Your task to perform on an android device: Go to calendar. Show me events next week Image 0: 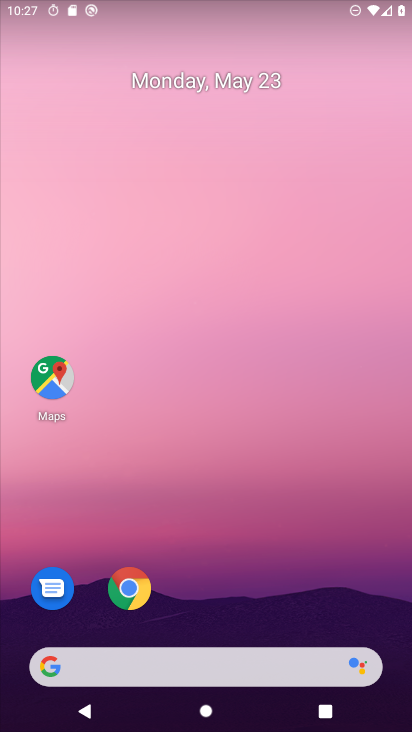
Step 0: drag from (389, 696) to (377, 121)
Your task to perform on an android device: Go to calendar. Show me events next week Image 1: 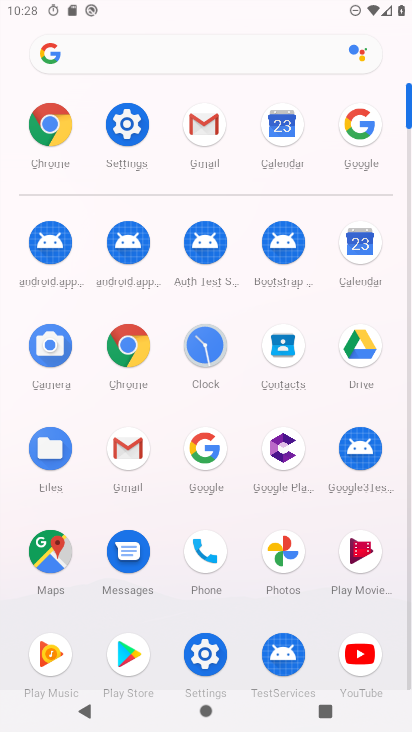
Step 1: click (355, 249)
Your task to perform on an android device: Go to calendar. Show me events next week Image 2: 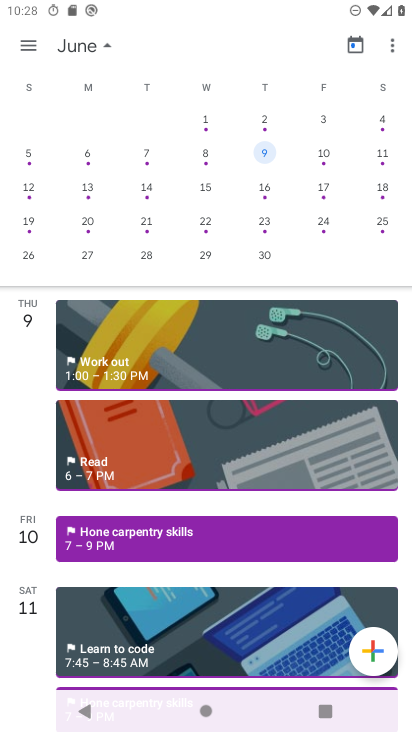
Step 2: drag from (12, 113) to (351, 126)
Your task to perform on an android device: Go to calendar. Show me events next week Image 3: 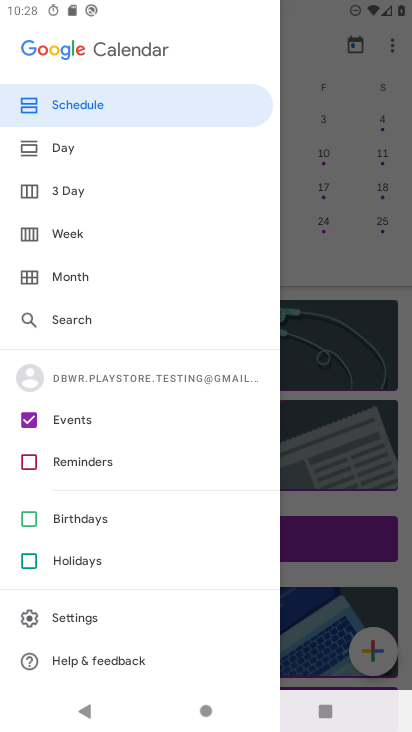
Step 3: press back button
Your task to perform on an android device: Go to calendar. Show me events next week Image 4: 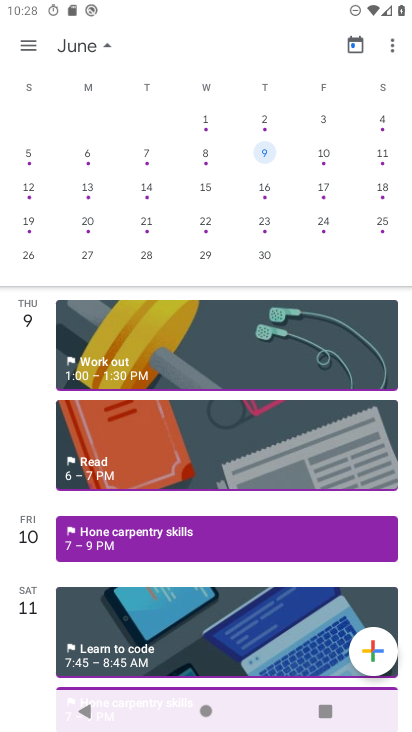
Step 4: drag from (12, 134) to (410, 140)
Your task to perform on an android device: Go to calendar. Show me events next week Image 5: 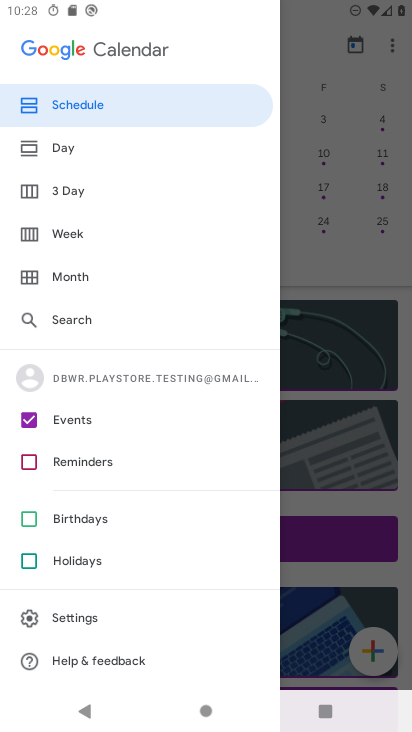
Step 5: press back button
Your task to perform on an android device: Go to calendar. Show me events next week Image 6: 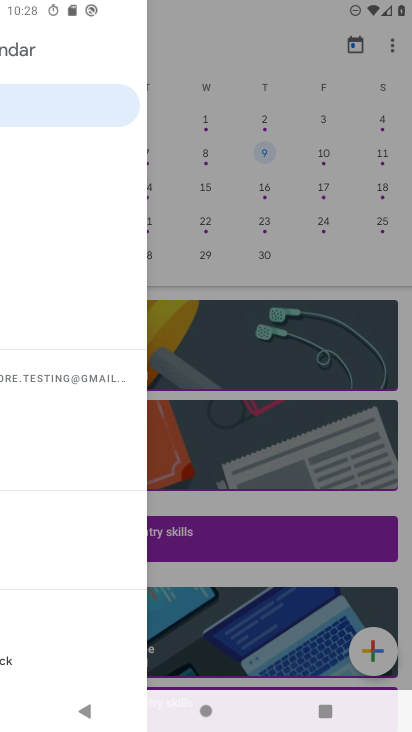
Step 6: drag from (410, 140) to (390, 212)
Your task to perform on an android device: Go to calendar. Show me events next week Image 7: 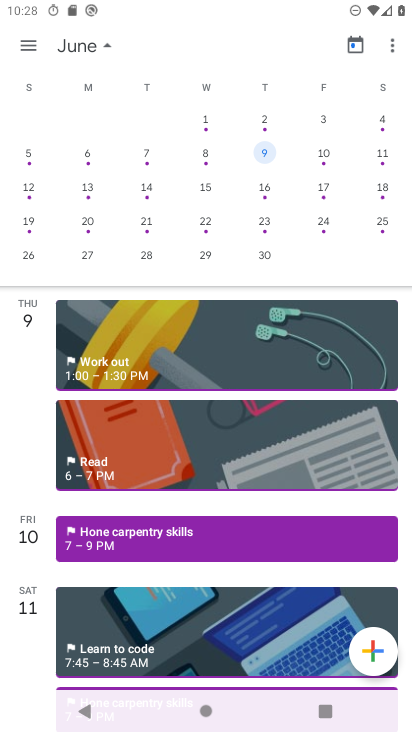
Step 7: drag from (50, 123) to (388, 114)
Your task to perform on an android device: Go to calendar. Show me events next week Image 8: 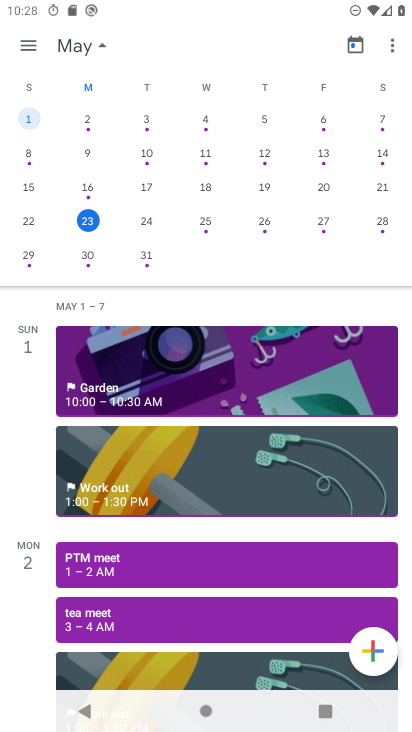
Step 8: click (138, 257)
Your task to perform on an android device: Go to calendar. Show me events next week Image 9: 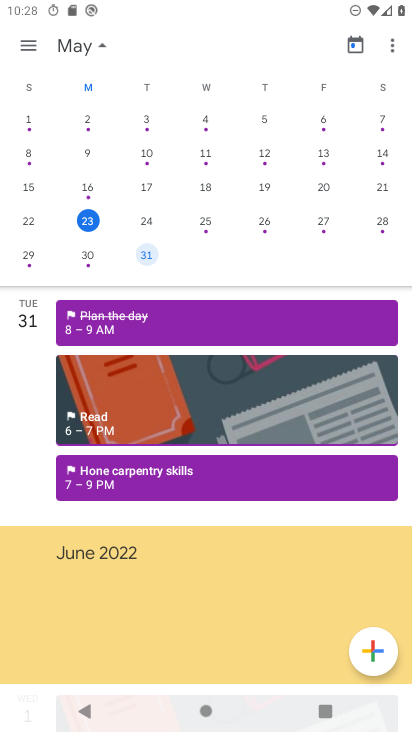
Step 9: click (31, 48)
Your task to perform on an android device: Go to calendar. Show me events next week Image 10: 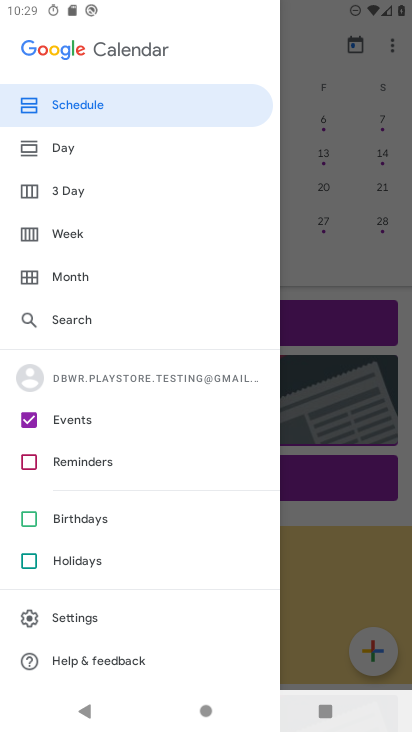
Step 10: click (50, 235)
Your task to perform on an android device: Go to calendar. Show me events next week Image 11: 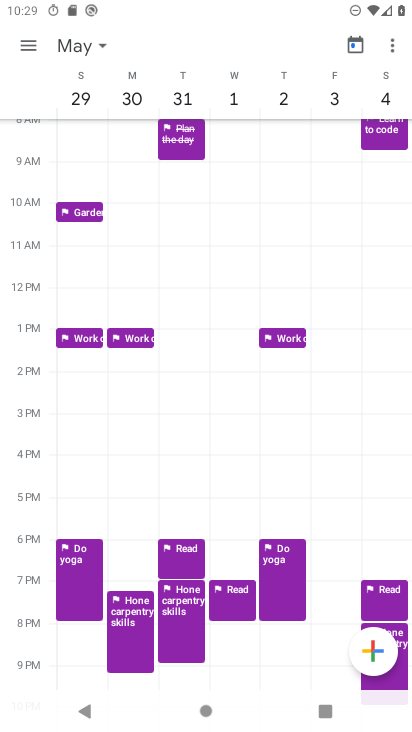
Step 11: task complete